Your task to perform on an android device: toggle translation in the chrome app Image 0: 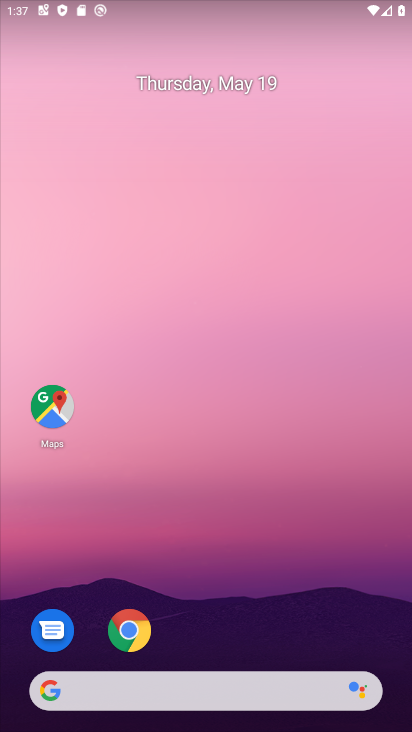
Step 0: click (129, 630)
Your task to perform on an android device: toggle translation in the chrome app Image 1: 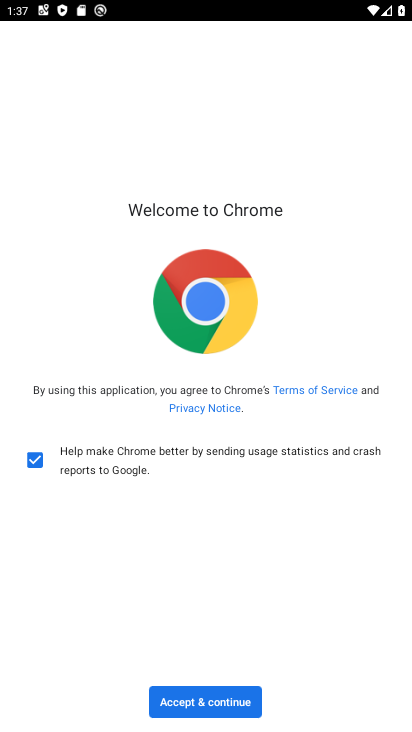
Step 1: click (203, 697)
Your task to perform on an android device: toggle translation in the chrome app Image 2: 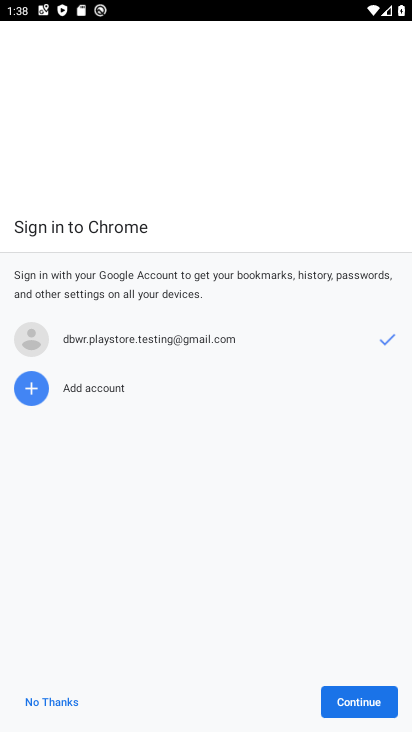
Step 2: click (350, 700)
Your task to perform on an android device: toggle translation in the chrome app Image 3: 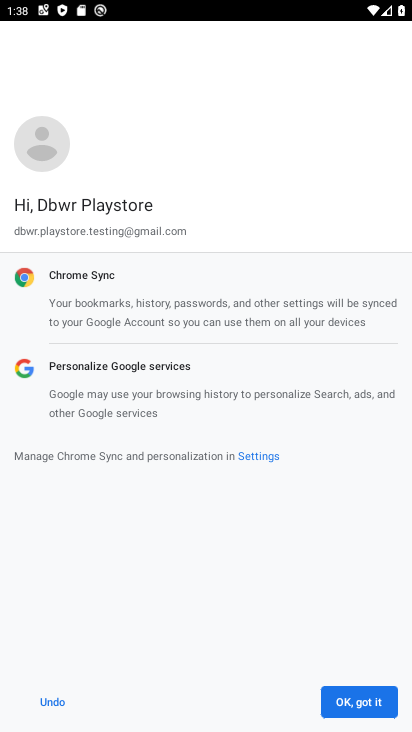
Step 3: click (350, 700)
Your task to perform on an android device: toggle translation in the chrome app Image 4: 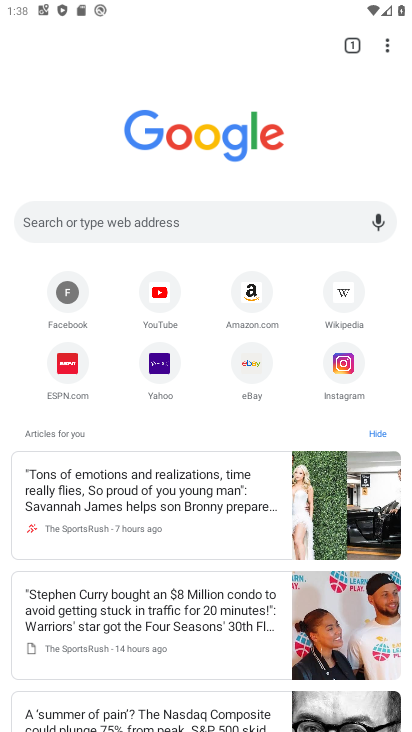
Step 4: click (387, 51)
Your task to perform on an android device: toggle translation in the chrome app Image 5: 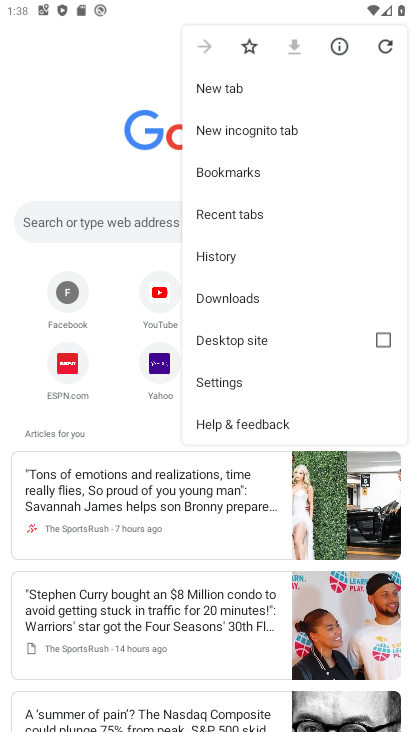
Step 5: click (218, 384)
Your task to perform on an android device: toggle translation in the chrome app Image 6: 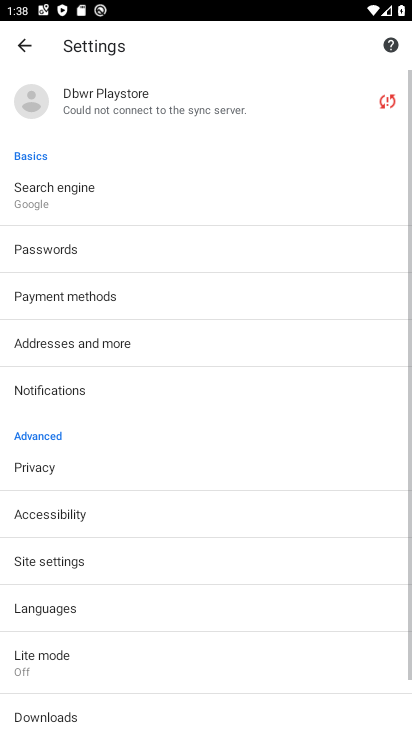
Step 6: drag from (196, 571) to (229, 351)
Your task to perform on an android device: toggle translation in the chrome app Image 7: 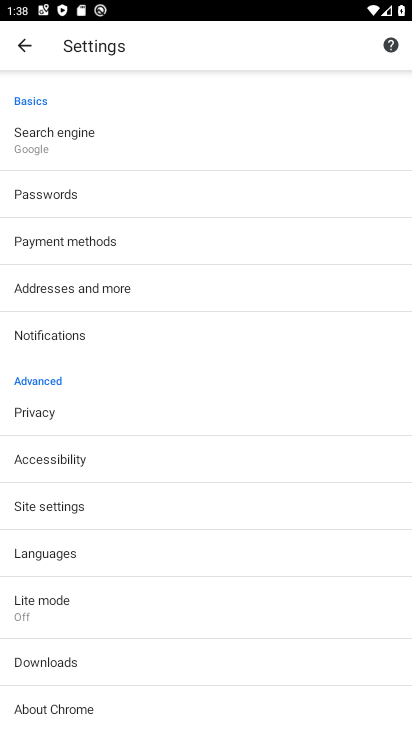
Step 7: click (41, 556)
Your task to perform on an android device: toggle translation in the chrome app Image 8: 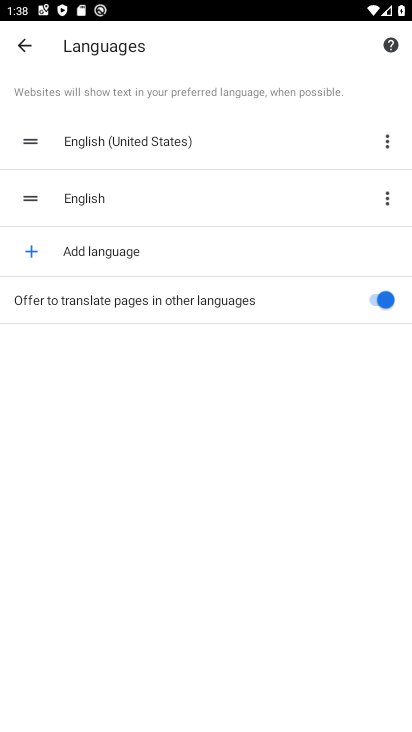
Step 8: click (366, 295)
Your task to perform on an android device: toggle translation in the chrome app Image 9: 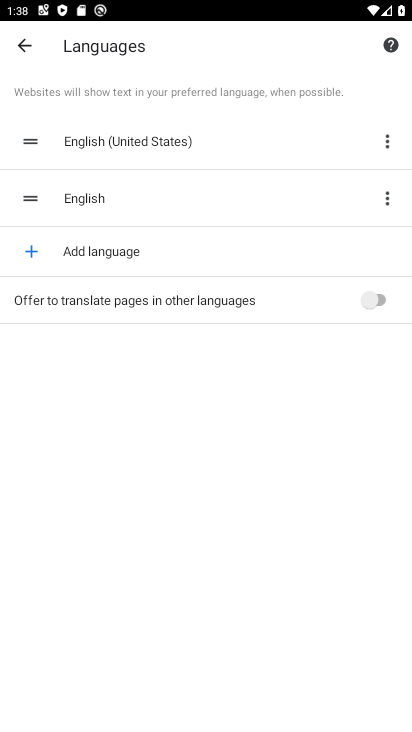
Step 9: task complete